Your task to perform on an android device: toggle priority inbox in the gmail app Image 0: 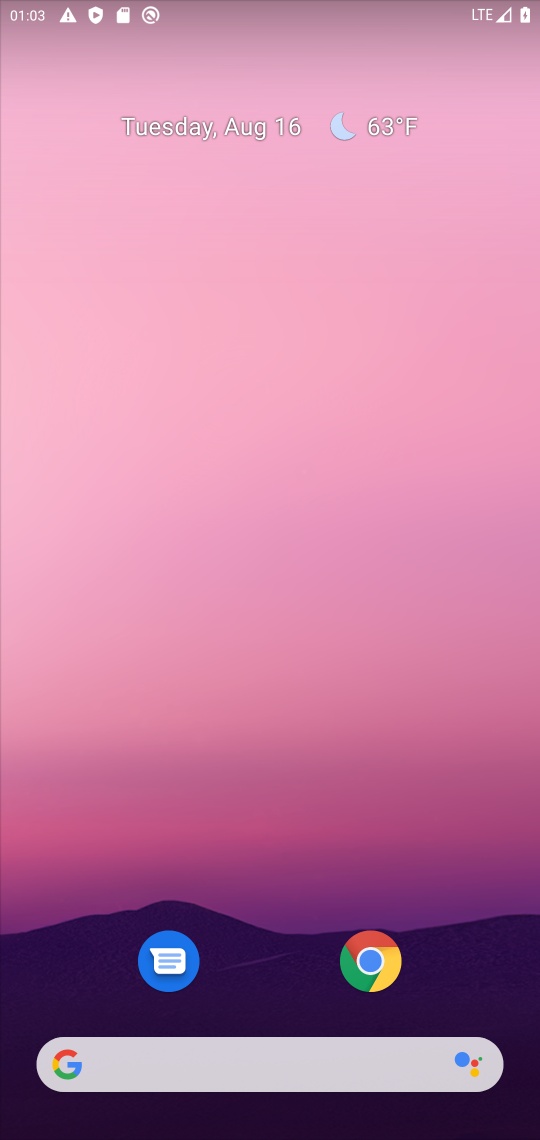
Step 0: press home button
Your task to perform on an android device: toggle priority inbox in the gmail app Image 1: 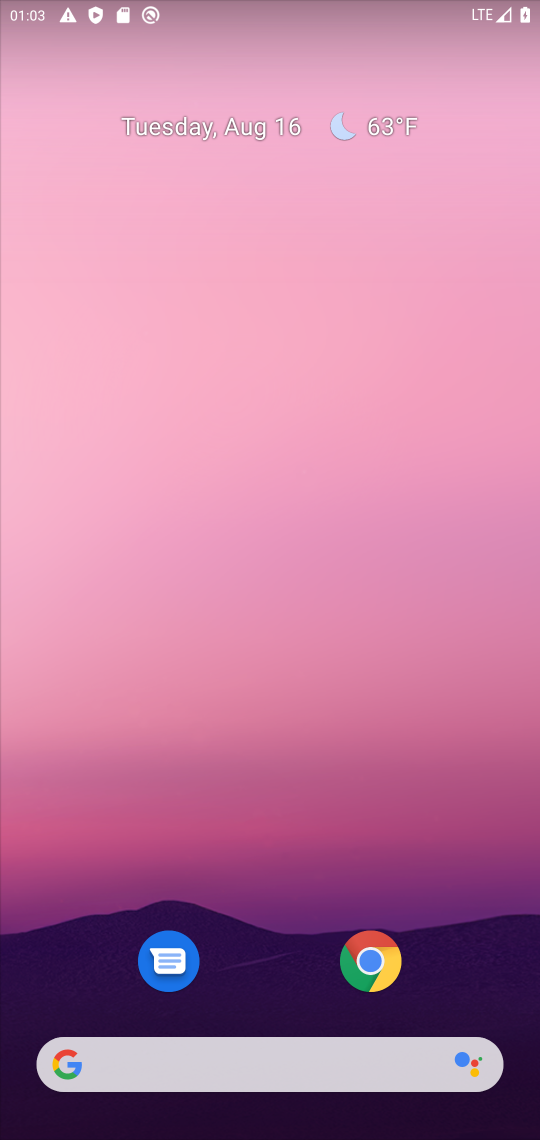
Step 1: drag from (283, 915) to (245, 216)
Your task to perform on an android device: toggle priority inbox in the gmail app Image 2: 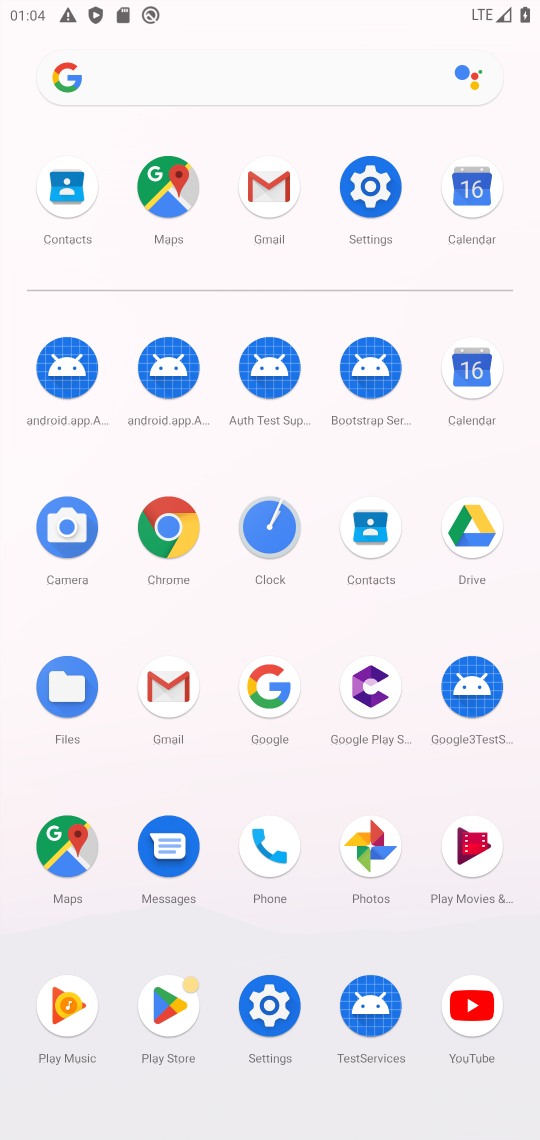
Step 2: click (282, 196)
Your task to perform on an android device: toggle priority inbox in the gmail app Image 3: 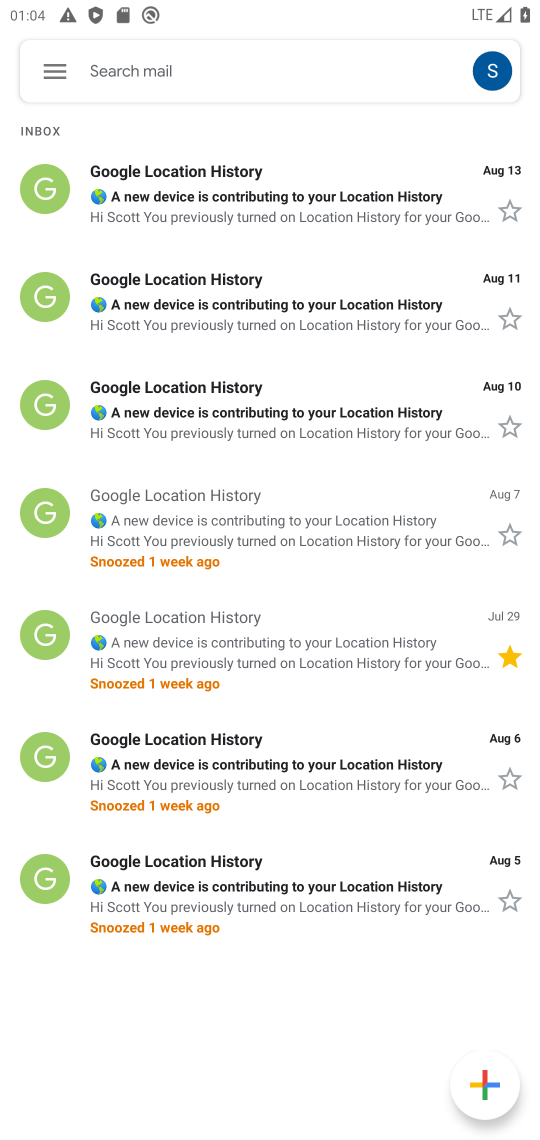
Step 3: click (46, 93)
Your task to perform on an android device: toggle priority inbox in the gmail app Image 4: 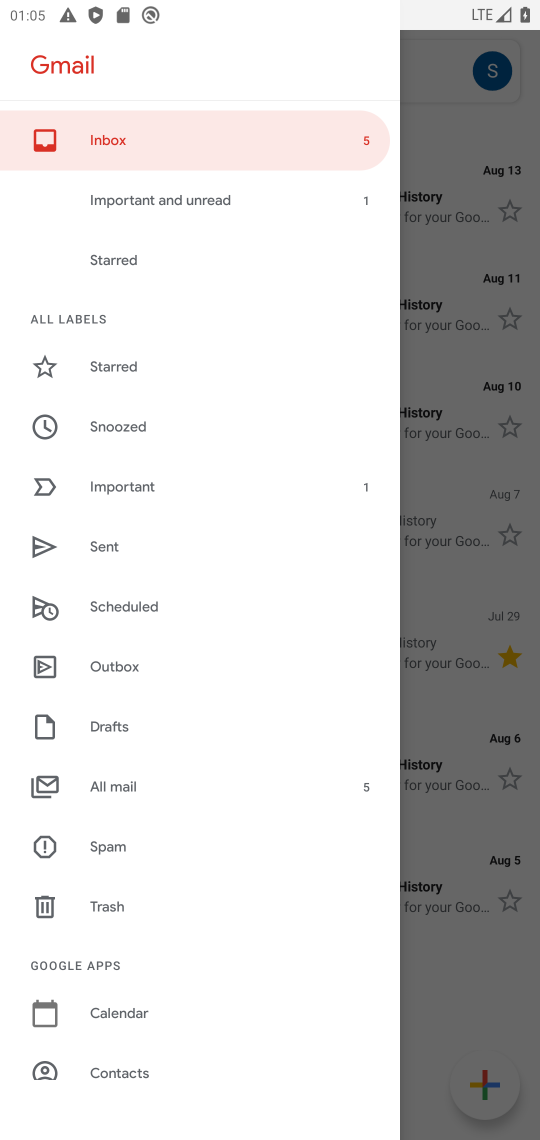
Step 4: drag from (86, 1073) to (31, 460)
Your task to perform on an android device: toggle priority inbox in the gmail app Image 5: 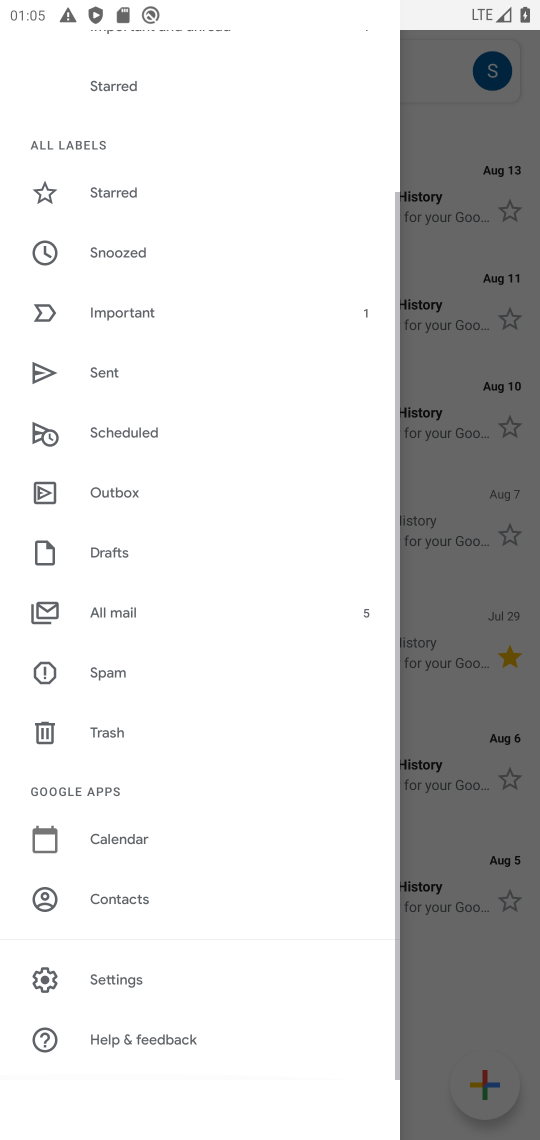
Step 5: click (157, 983)
Your task to perform on an android device: toggle priority inbox in the gmail app Image 6: 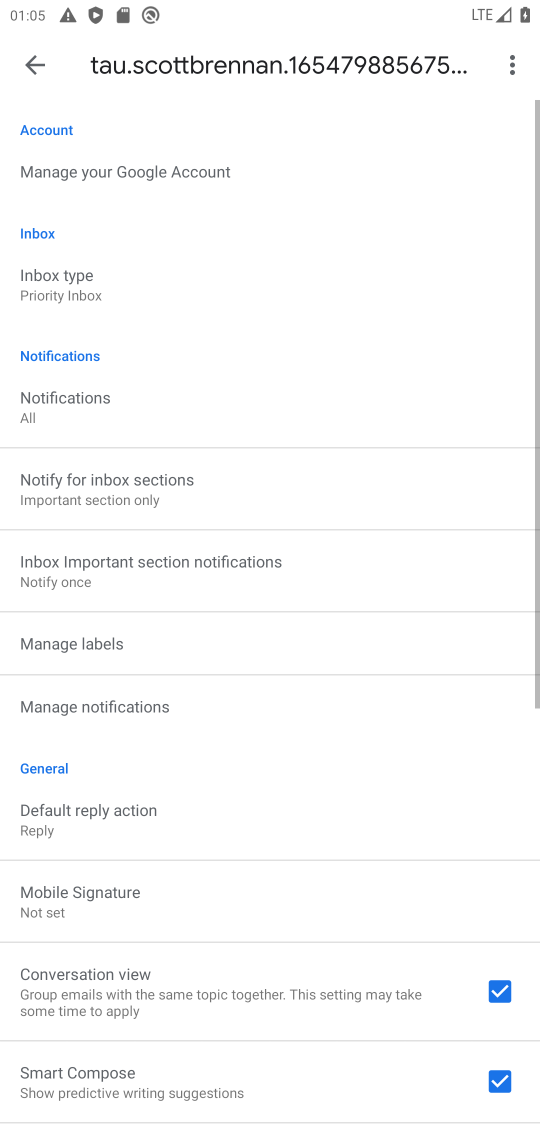
Step 6: click (58, 277)
Your task to perform on an android device: toggle priority inbox in the gmail app Image 7: 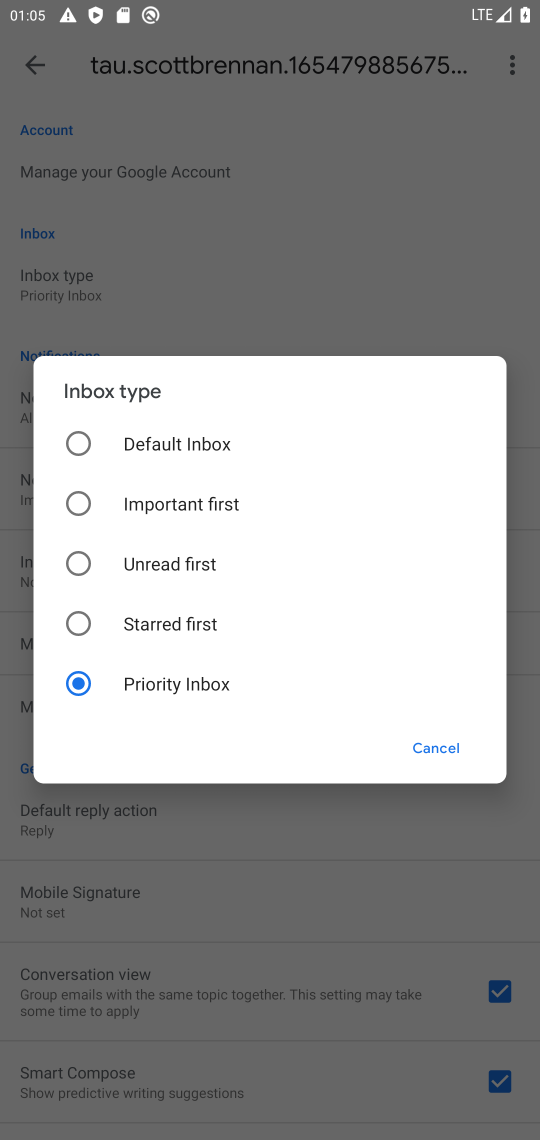
Step 7: click (229, 450)
Your task to perform on an android device: toggle priority inbox in the gmail app Image 8: 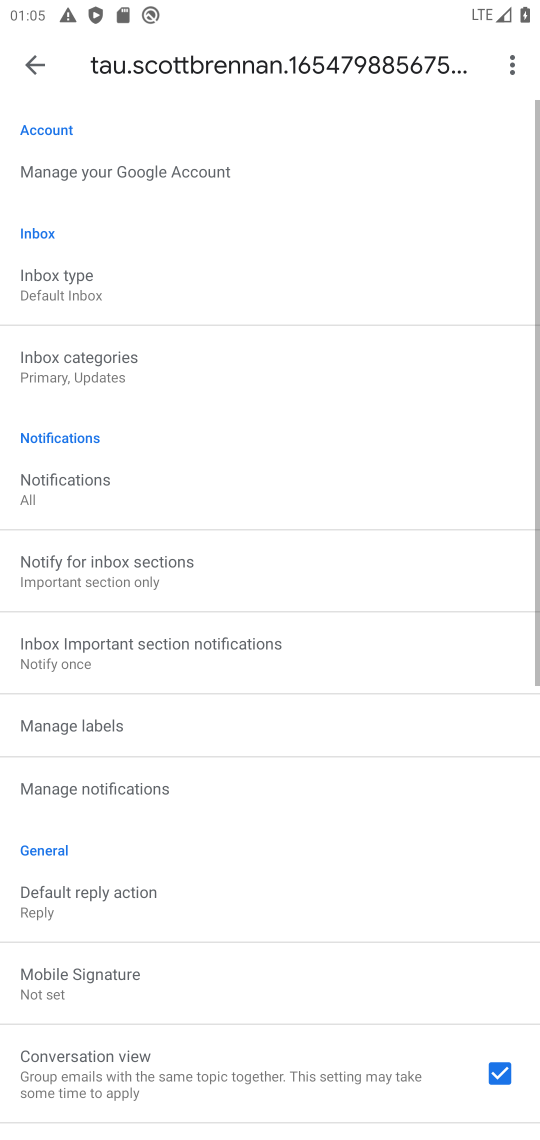
Step 8: task complete